Your task to perform on an android device: open wifi settings Image 0: 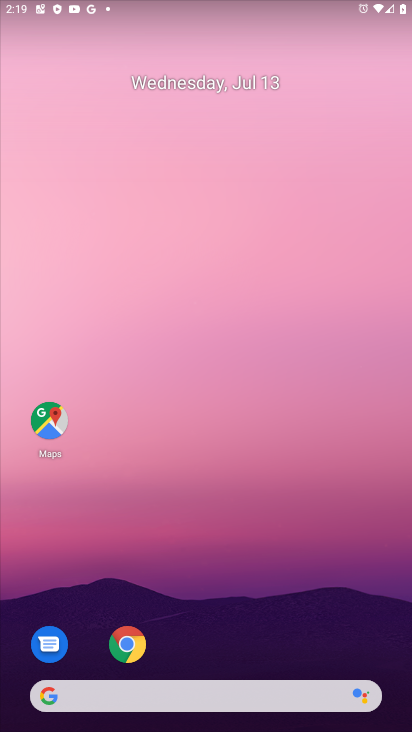
Step 0: drag from (185, 670) to (186, 44)
Your task to perform on an android device: open wifi settings Image 1: 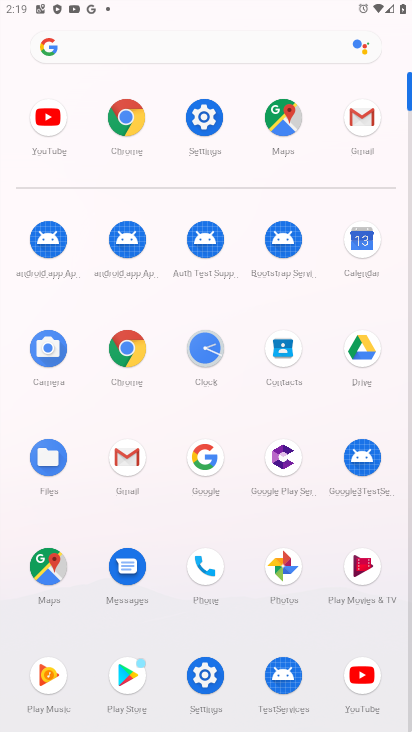
Step 1: click (224, 114)
Your task to perform on an android device: open wifi settings Image 2: 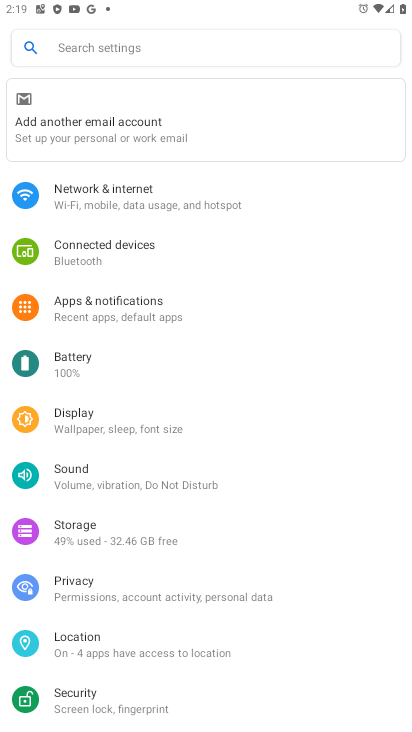
Step 2: click (219, 195)
Your task to perform on an android device: open wifi settings Image 3: 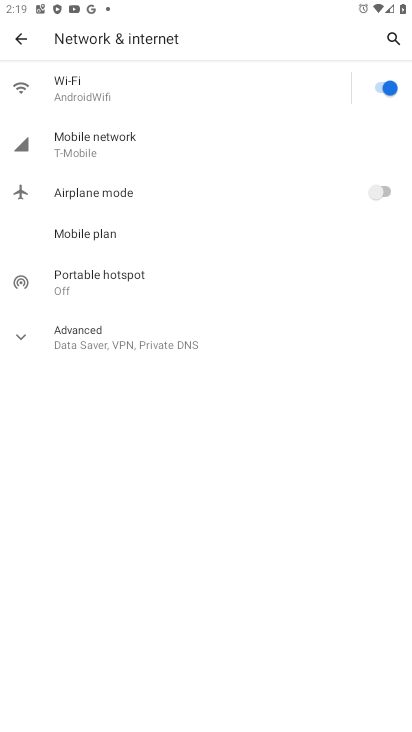
Step 3: click (94, 94)
Your task to perform on an android device: open wifi settings Image 4: 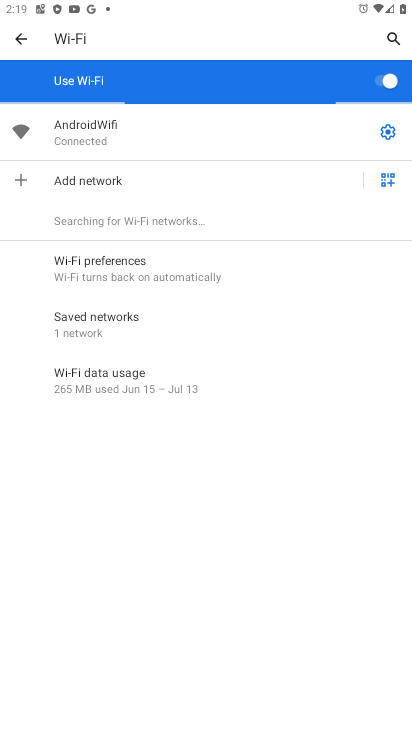
Step 4: task complete